Your task to perform on an android device: When is my next appointment? Image 0: 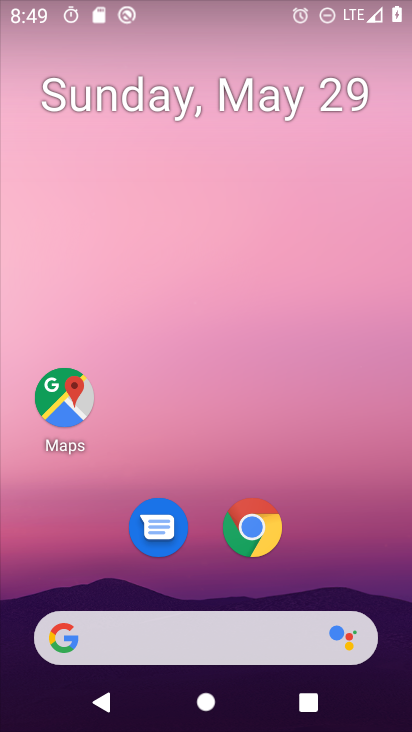
Step 0: drag from (391, 612) to (306, 47)
Your task to perform on an android device: When is my next appointment? Image 1: 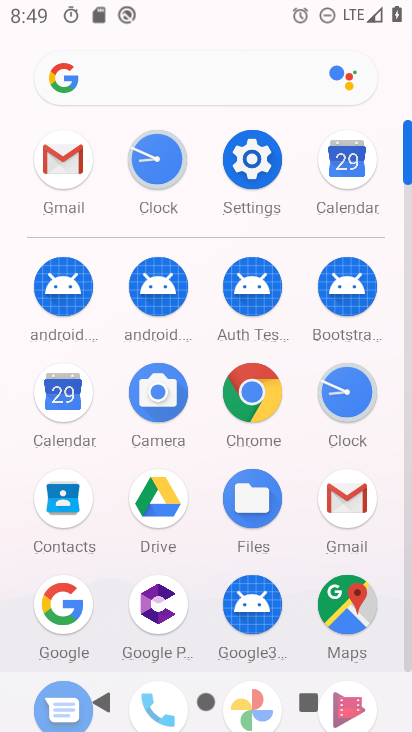
Step 1: click (69, 411)
Your task to perform on an android device: When is my next appointment? Image 2: 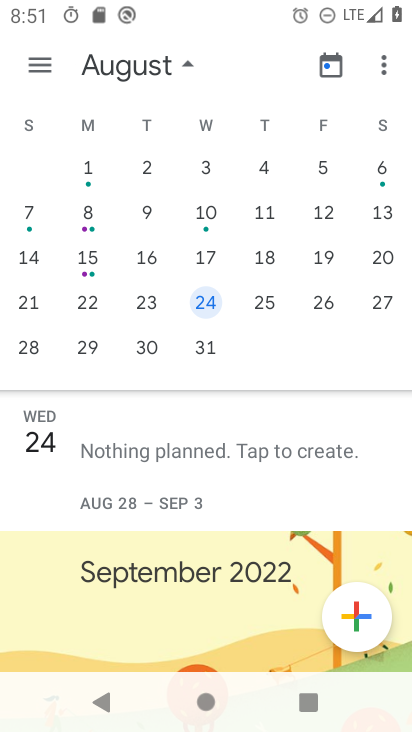
Step 2: task complete